Your task to perform on an android device: open app "Calculator" Image 0: 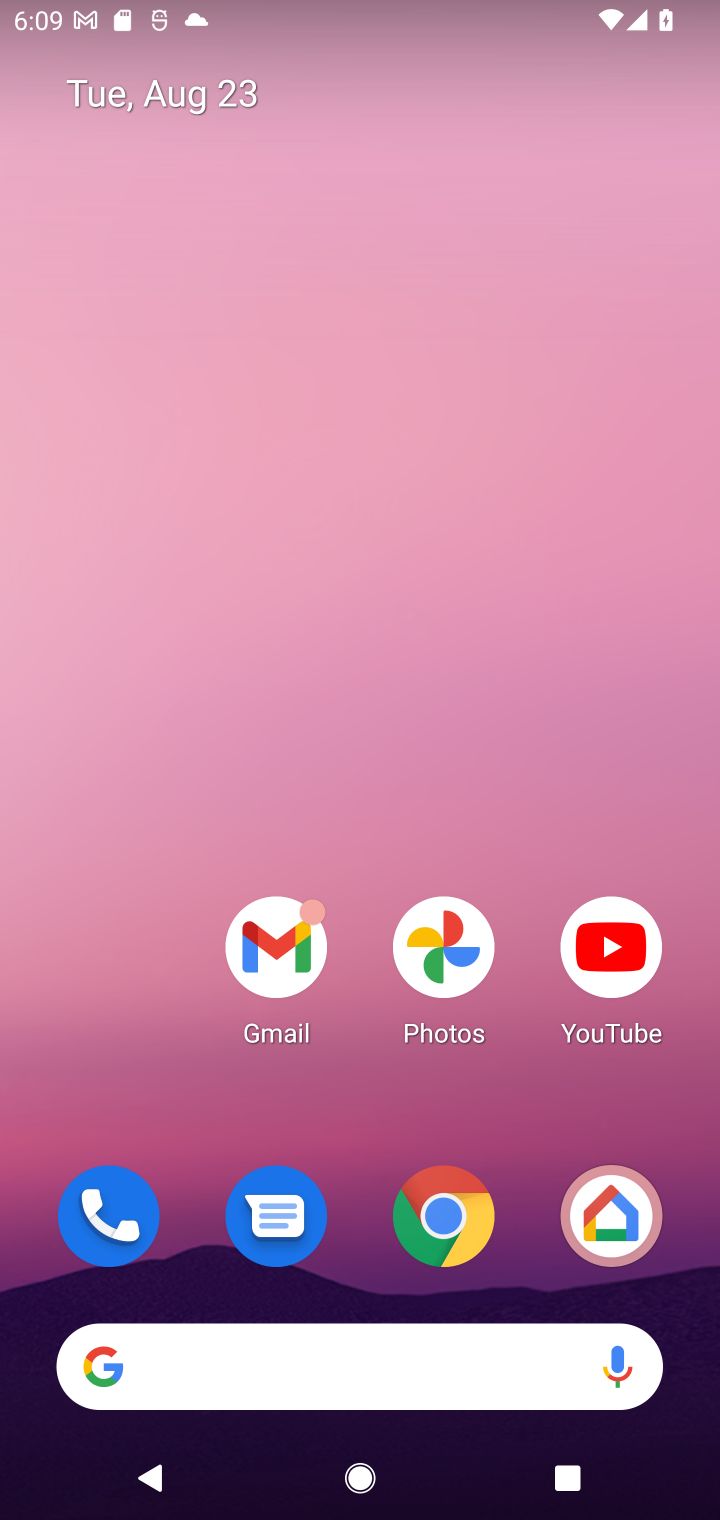
Step 0: drag from (352, 314) to (352, 128)
Your task to perform on an android device: open app "Calculator" Image 1: 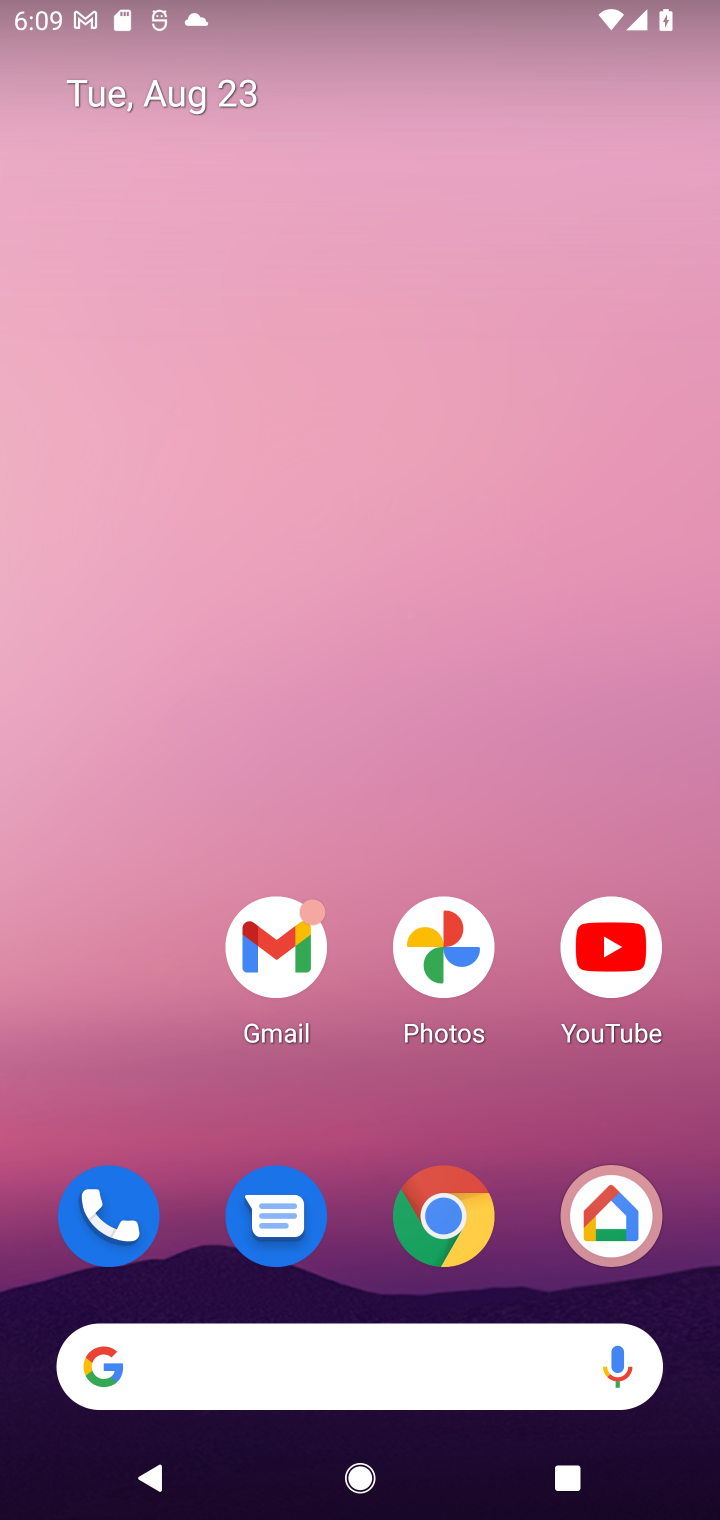
Step 1: drag from (396, 787) to (396, 264)
Your task to perform on an android device: open app "Calculator" Image 2: 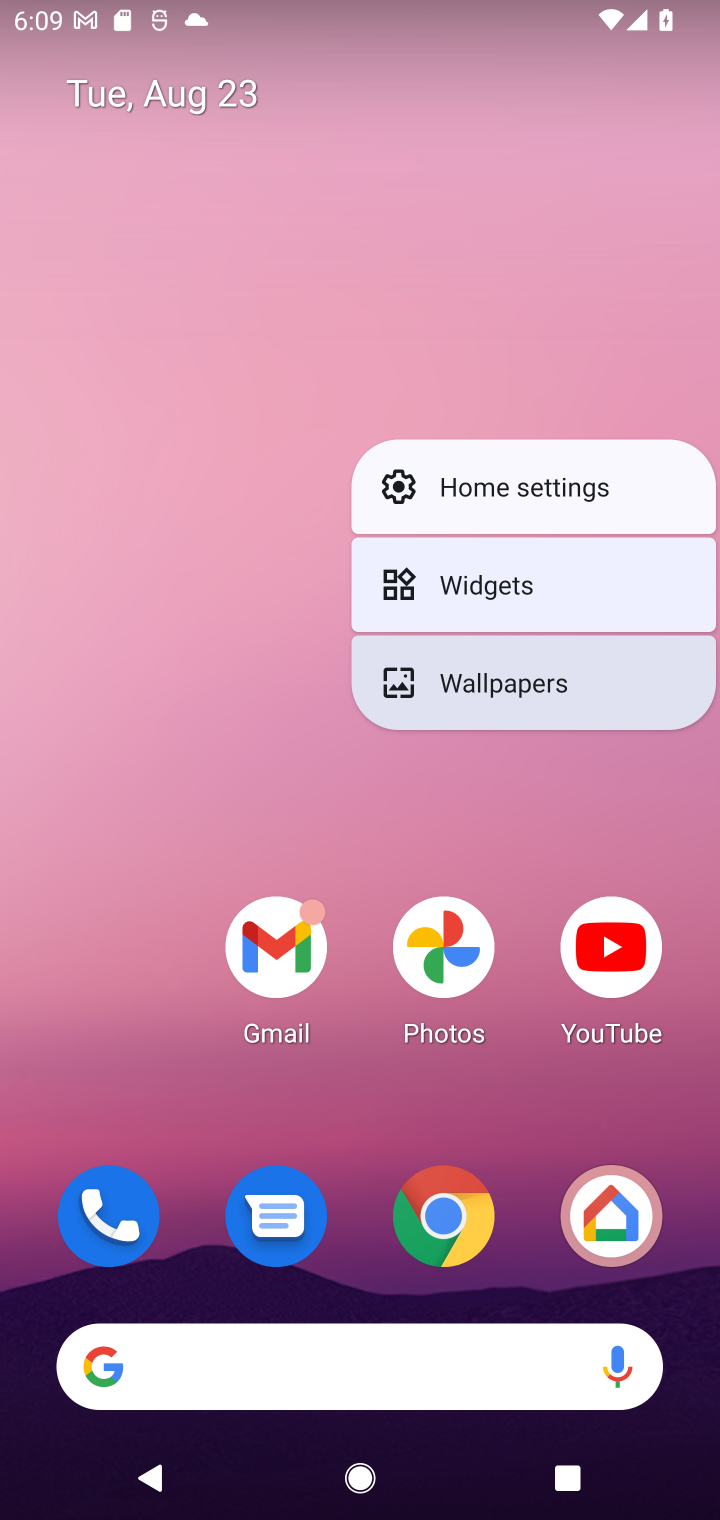
Step 2: click (215, 1109)
Your task to perform on an android device: open app "Calculator" Image 3: 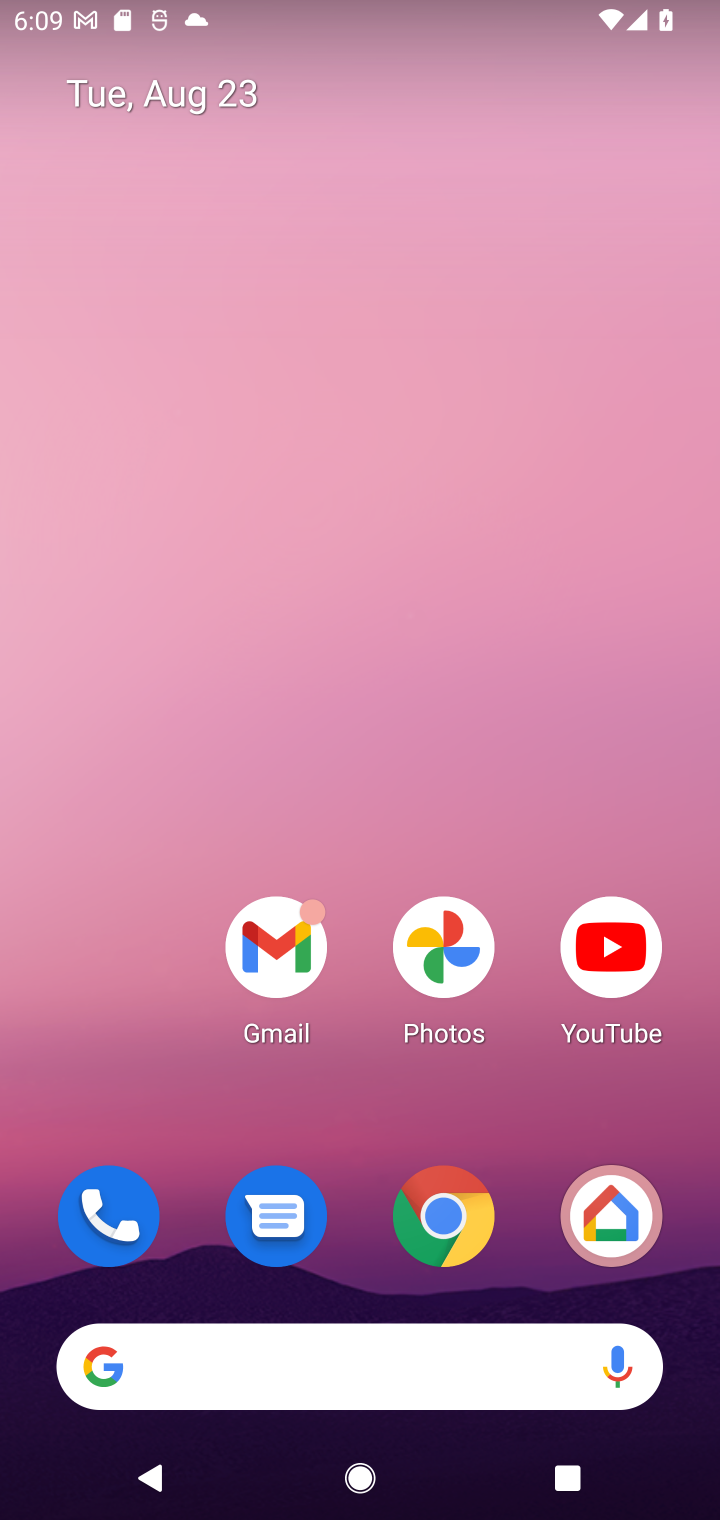
Step 3: drag from (310, 1158) to (333, 62)
Your task to perform on an android device: open app "Calculator" Image 4: 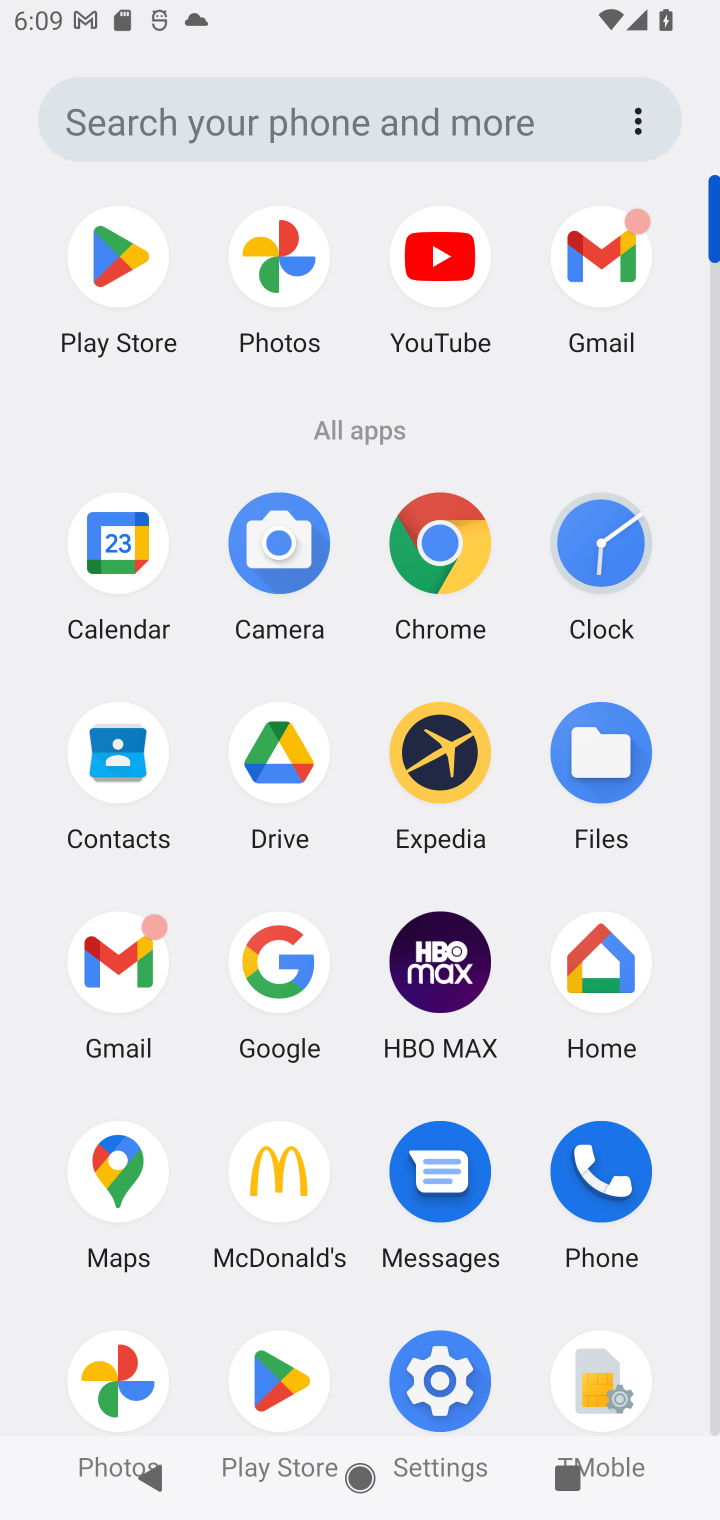
Step 4: click (87, 244)
Your task to perform on an android device: open app "Calculator" Image 5: 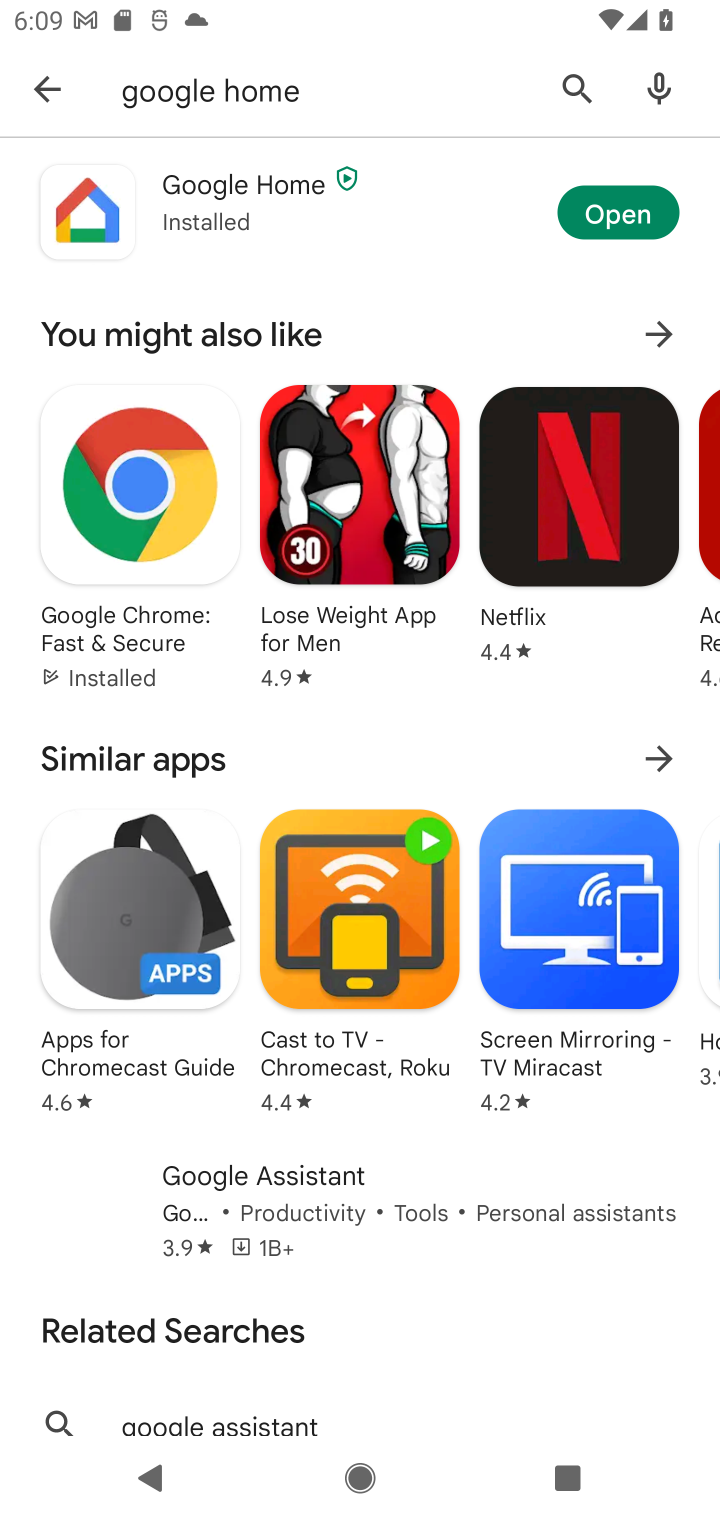
Step 5: click (601, 77)
Your task to perform on an android device: open app "Calculator" Image 6: 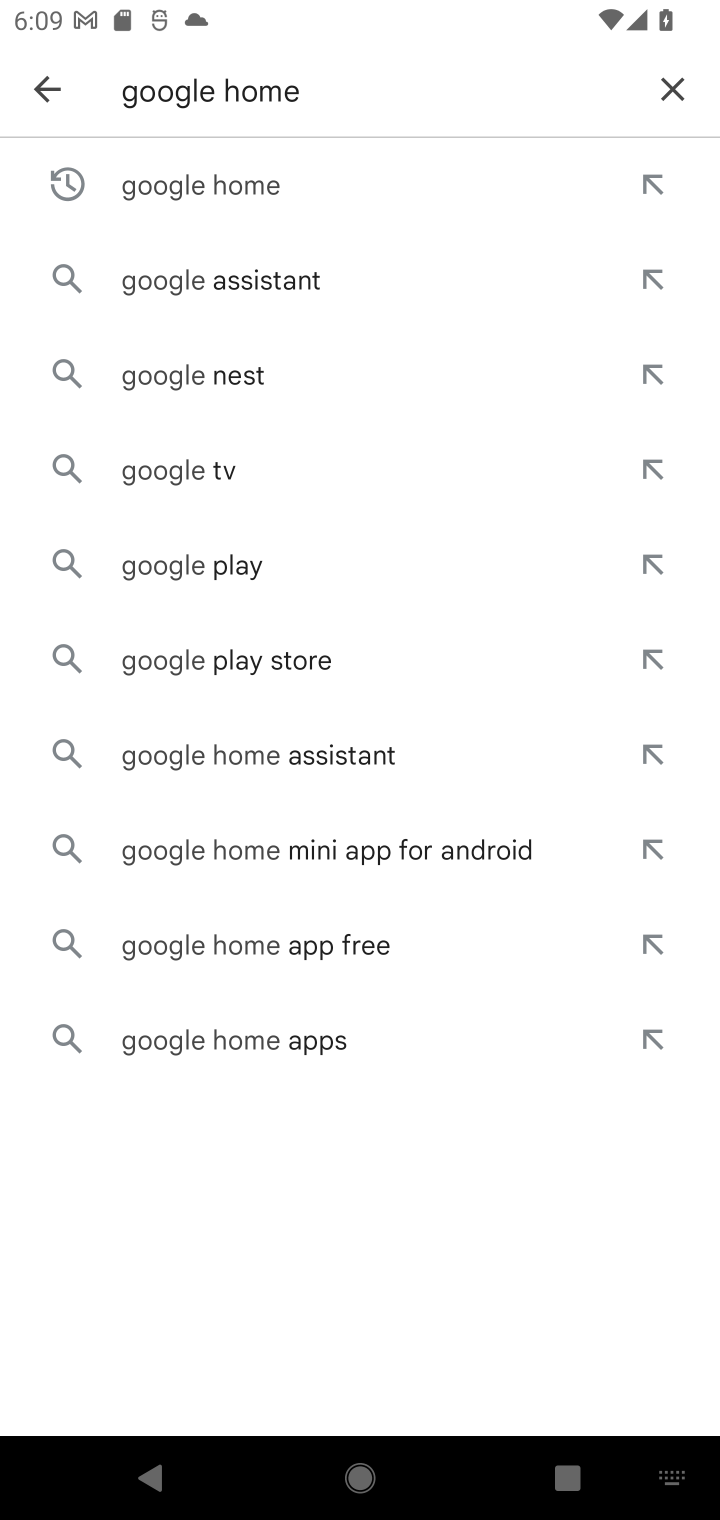
Step 6: click (665, 97)
Your task to perform on an android device: open app "Calculator" Image 7: 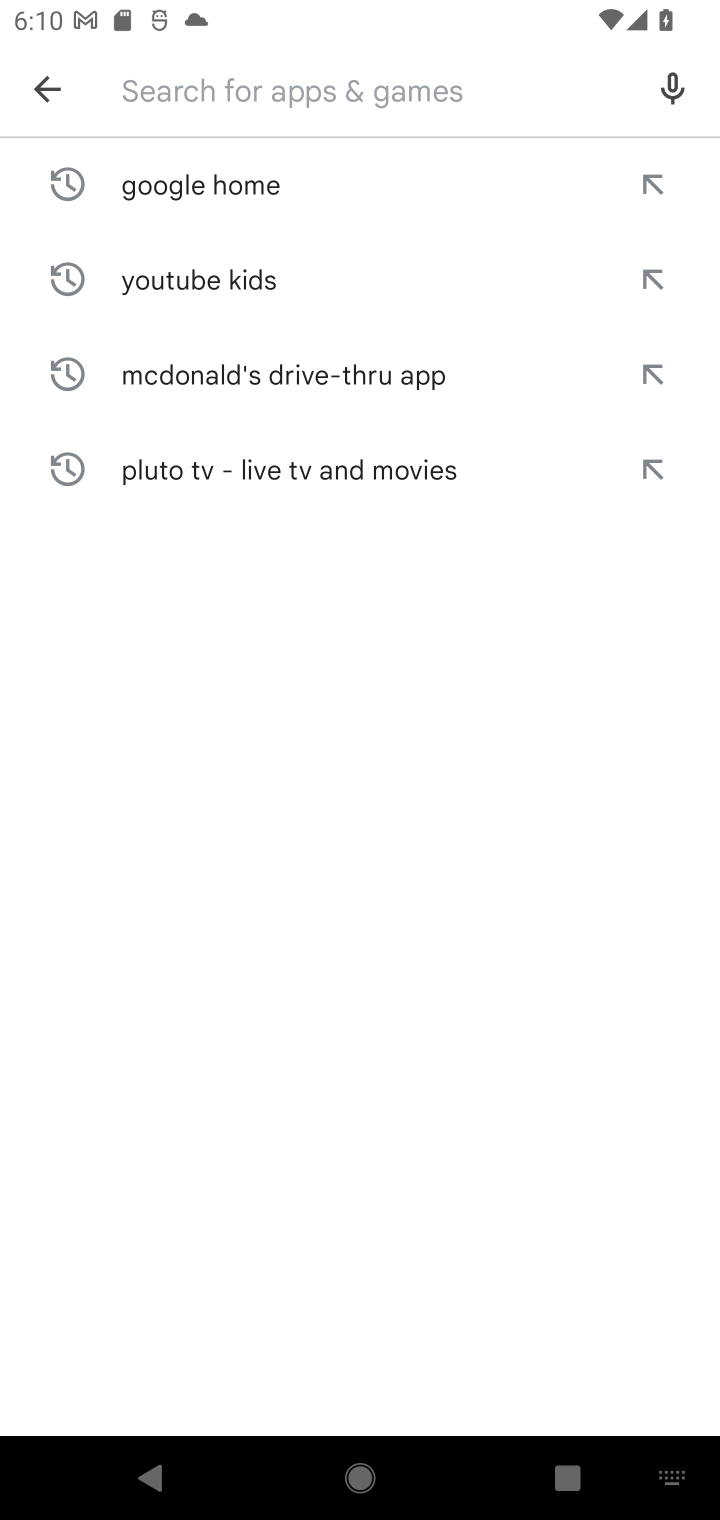
Step 7: type "Calculator"
Your task to perform on an android device: open app "Calculator" Image 8: 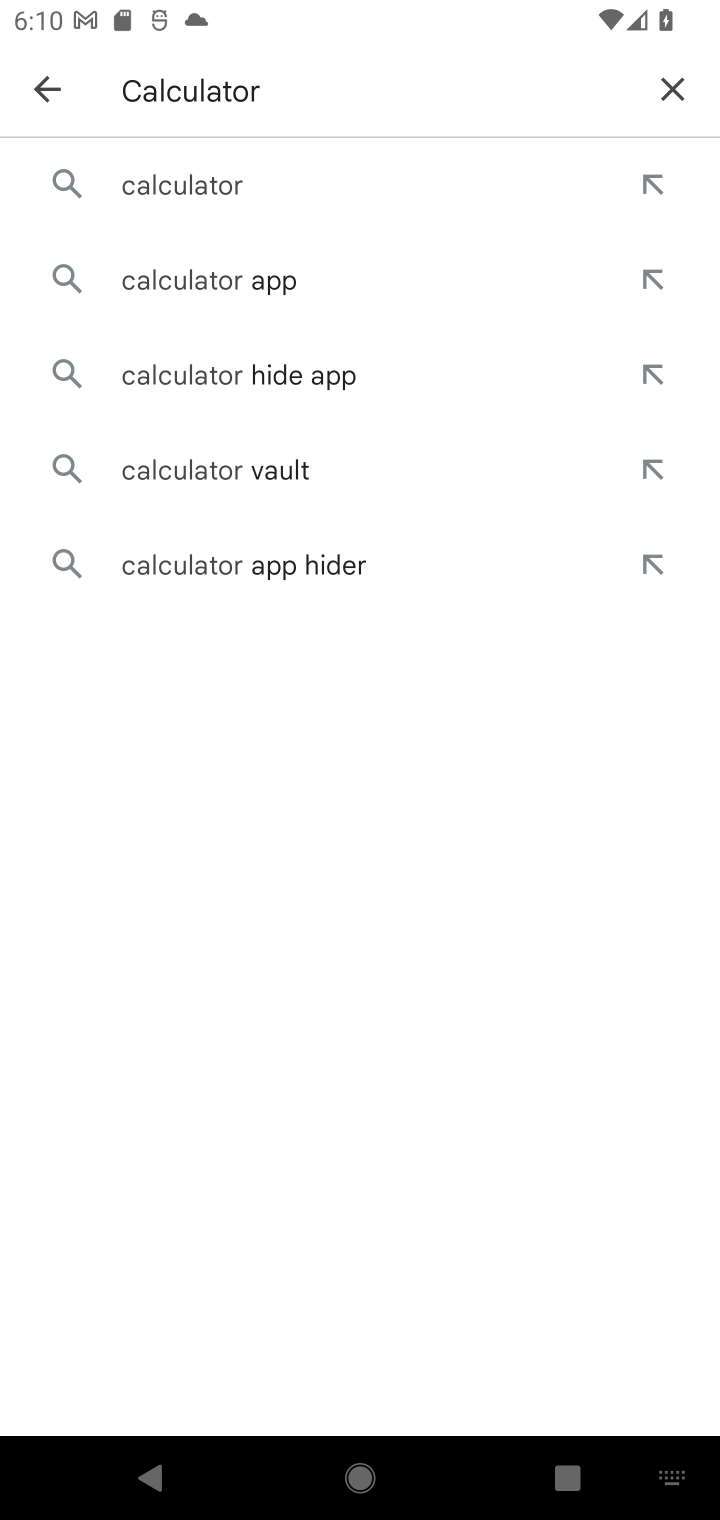
Step 8: click (234, 184)
Your task to perform on an android device: open app "Calculator" Image 9: 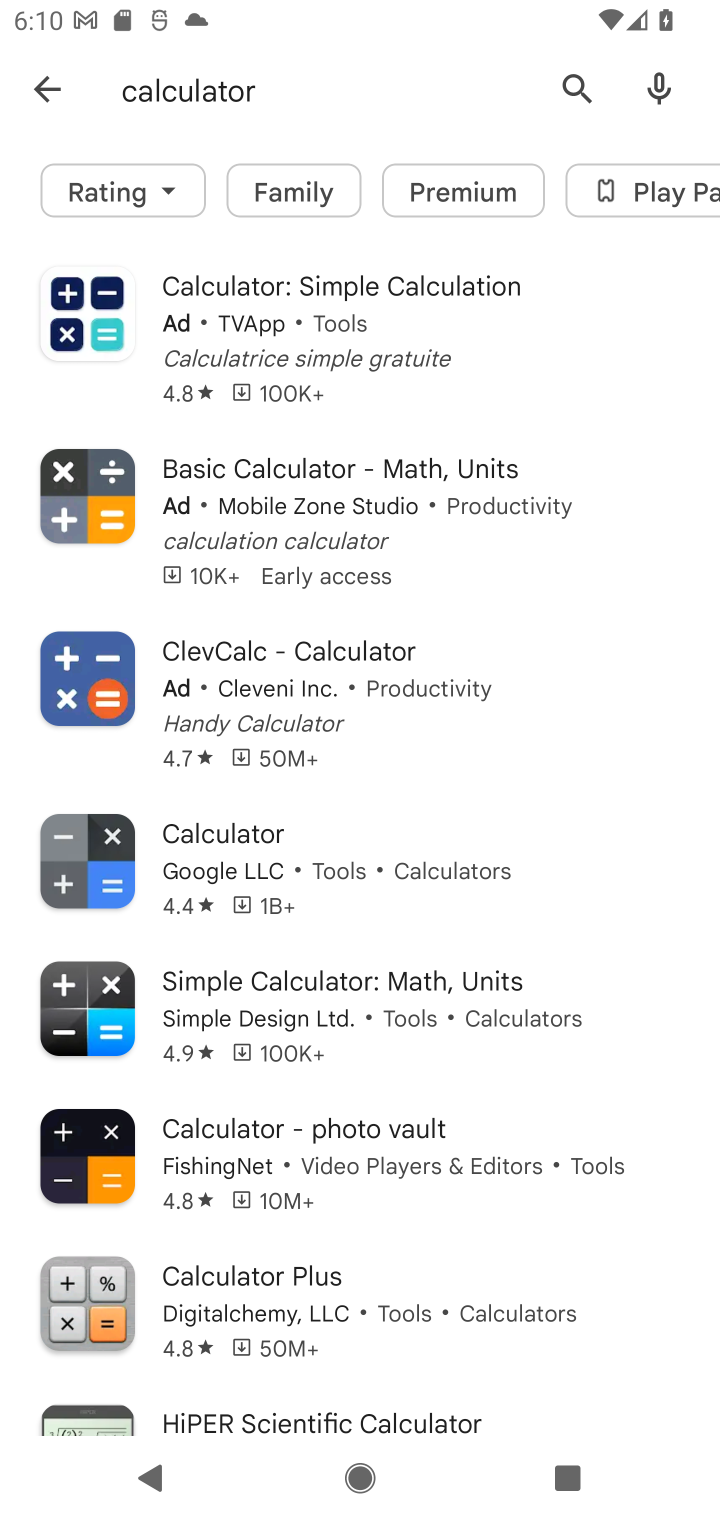
Step 9: click (195, 869)
Your task to perform on an android device: open app "Calculator" Image 10: 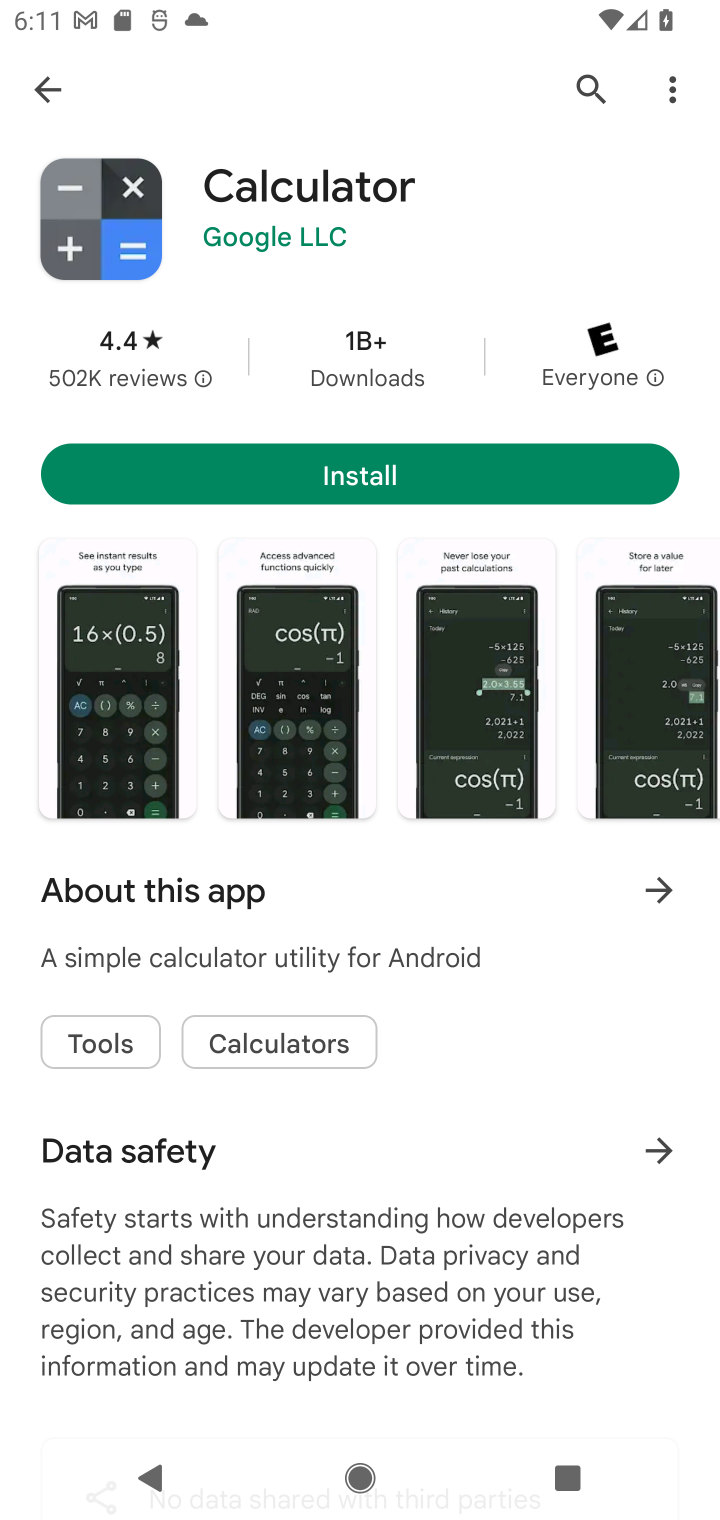
Step 10: click (391, 471)
Your task to perform on an android device: open app "Calculator" Image 11: 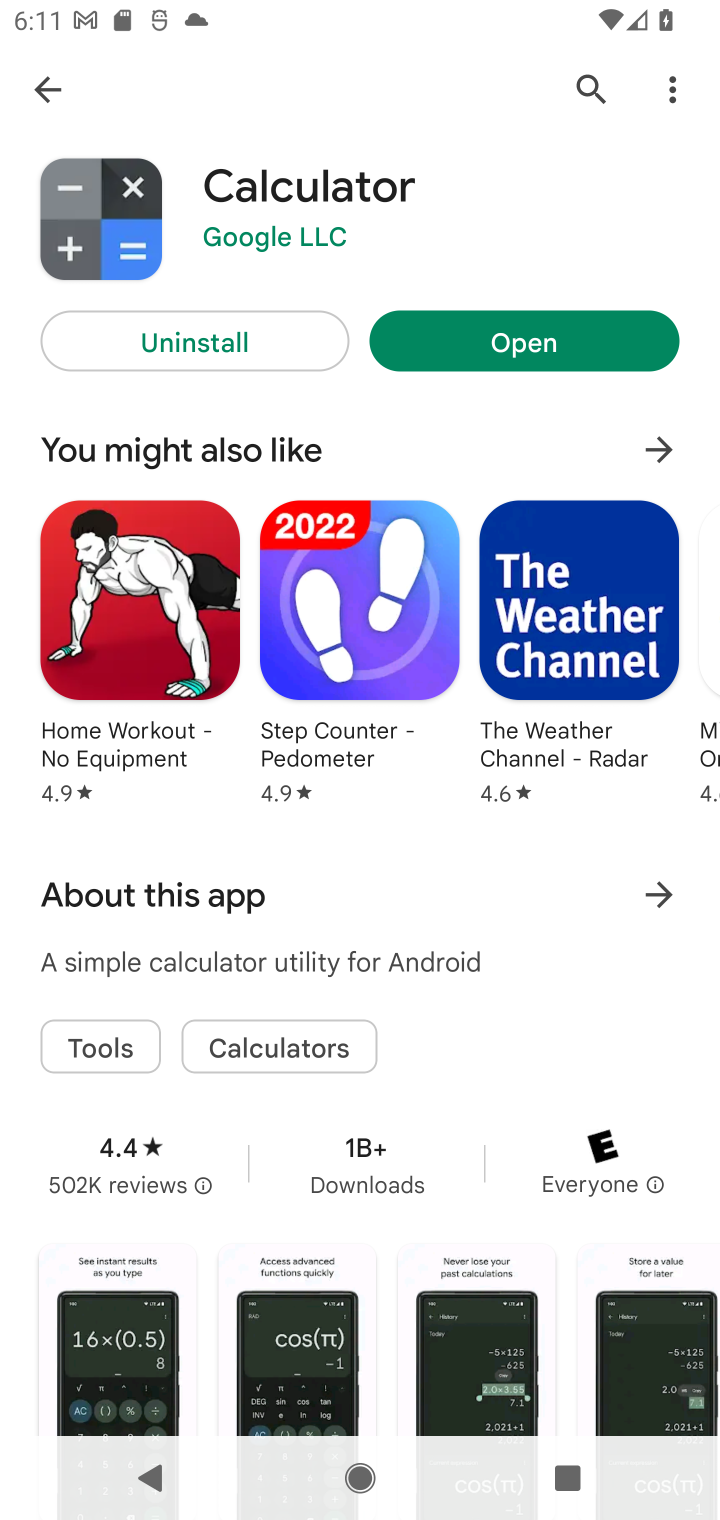
Step 11: click (531, 352)
Your task to perform on an android device: open app "Calculator" Image 12: 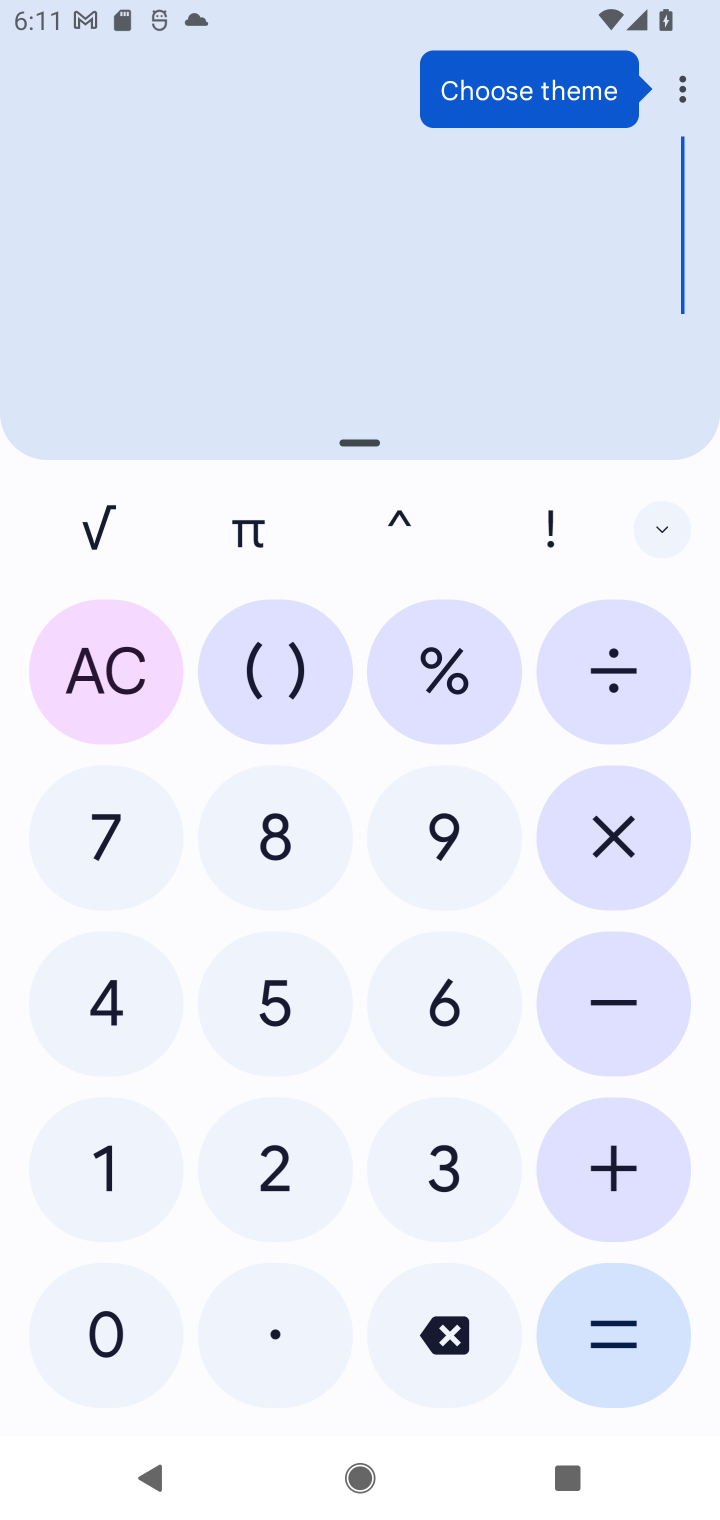
Step 12: task complete